Your task to perform on an android device: turn on improve location accuracy Image 0: 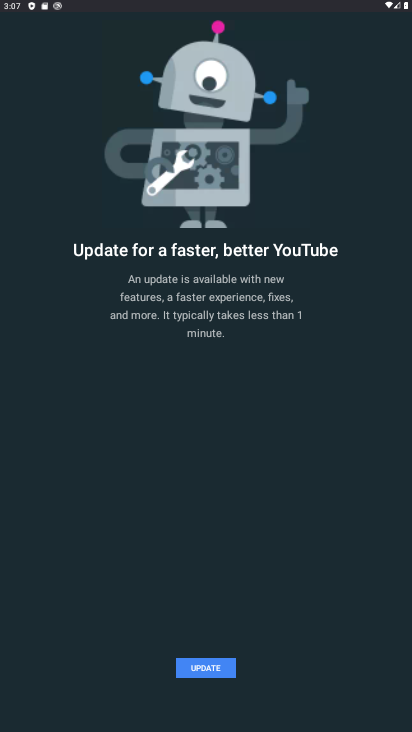
Step 0: press back button
Your task to perform on an android device: turn on improve location accuracy Image 1: 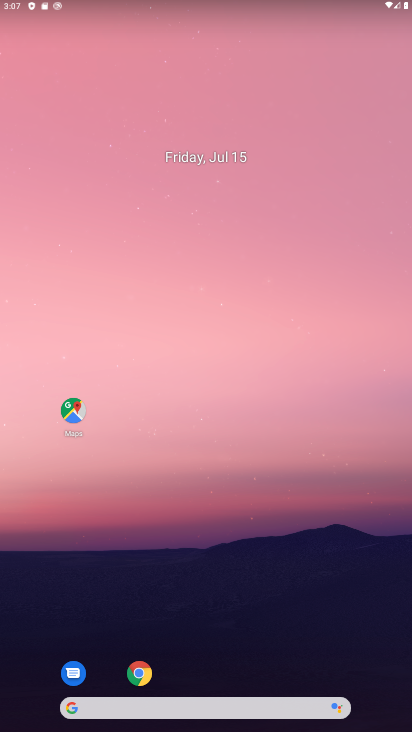
Step 1: drag from (233, 598) to (300, 194)
Your task to perform on an android device: turn on improve location accuracy Image 2: 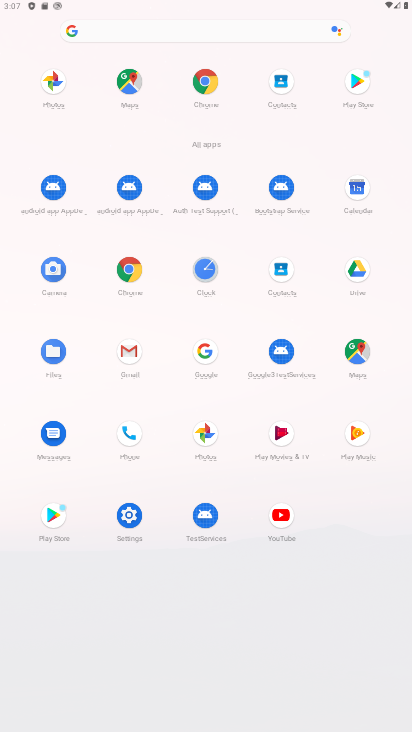
Step 2: drag from (190, 634) to (239, 484)
Your task to perform on an android device: turn on improve location accuracy Image 3: 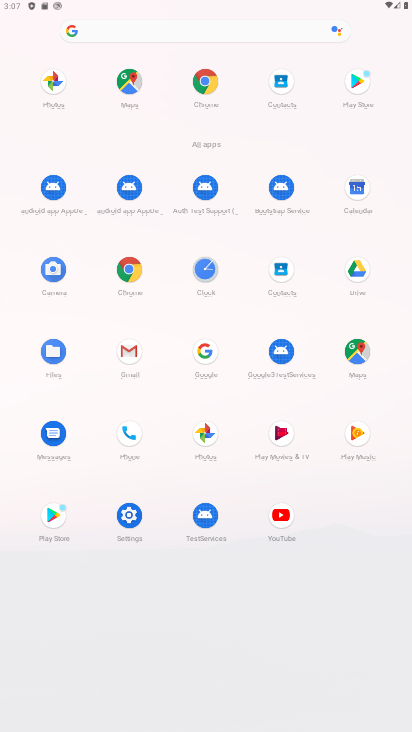
Step 3: click (143, 524)
Your task to perform on an android device: turn on improve location accuracy Image 4: 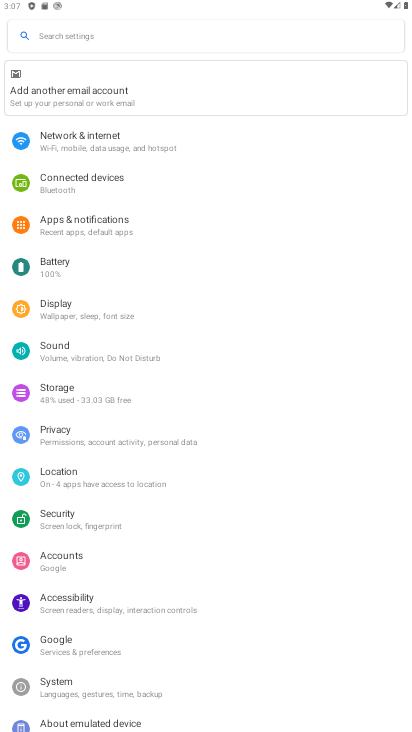
Step 4: click (107, 478)
Your task to perform on an android device: turn on improve location accuracy Image 5: 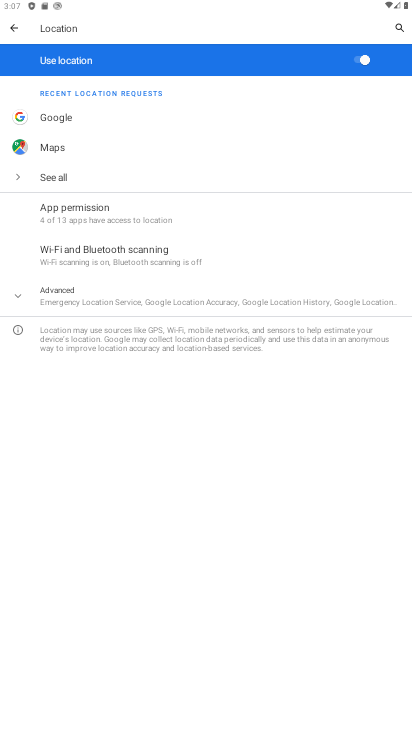
Step 5: click (148, 311)
Your task to perform on an android device: turn on improve location accuracy Image 6: 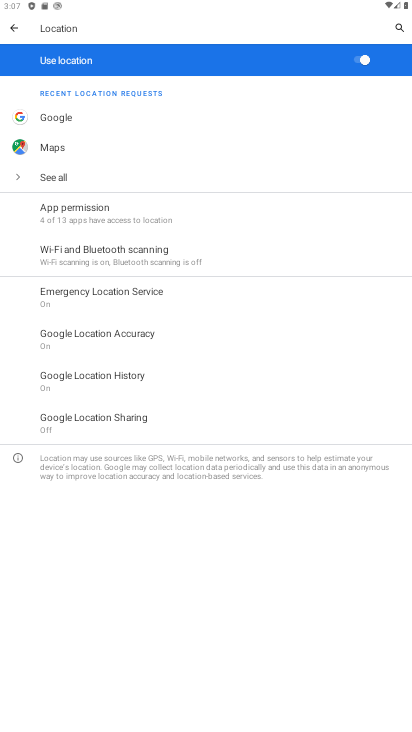
Step 6: click (129, 338)
Your task to perform on an android device: turn on improve location accuracy Image 7: 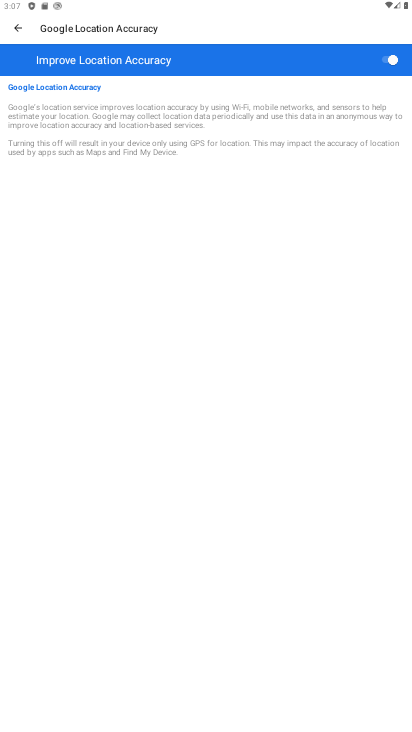
Step 7: task complete